Your task to perform on an android device: toggle show notifications on the lock screen Image 0: 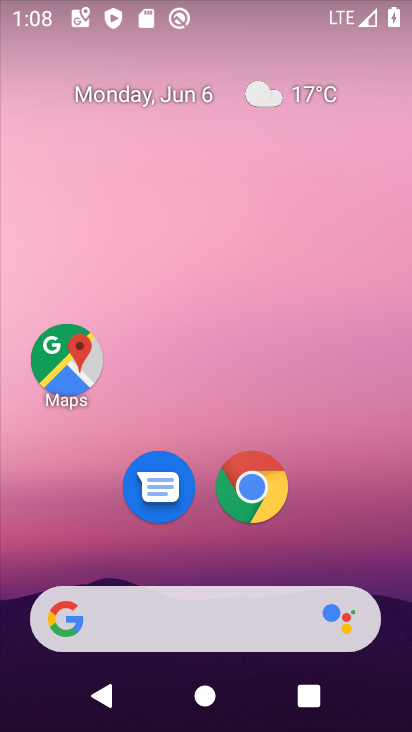
Step 0: drag from (194, 556) to (252, 41)
Your task to perform on an android device: toggle show notifications on the lock screen Image 1: 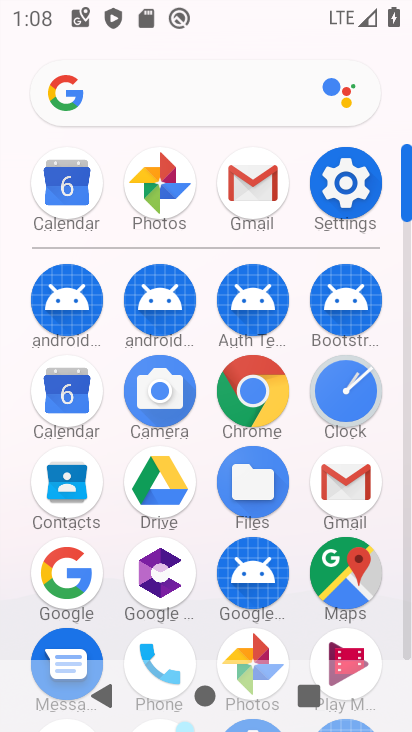
Step 1: click (341, 181)
Your task to perform on an android device: toggle show notifications on the lock screen Image 2: 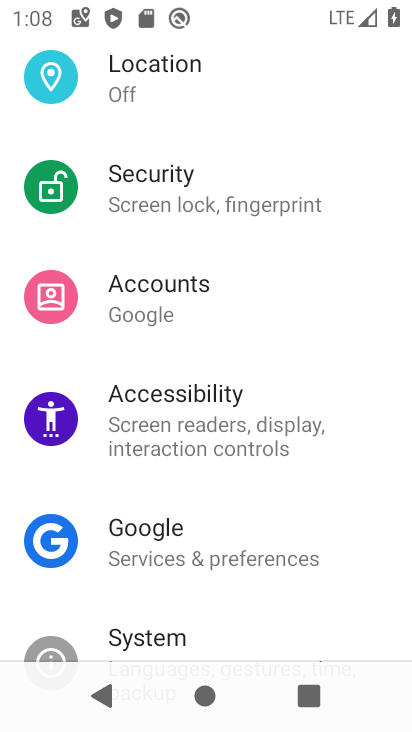
Step 2: drag from (283, 181) to (168, 588)
Your task to perform on an android device: toggle show notifications on the lock screen Image 3: 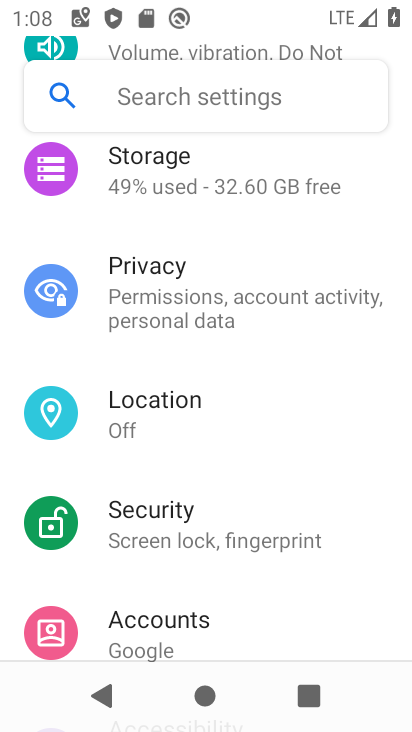
Step 3: drag from (275, 200) to (268, 558)
Your task to perform on an android device: toggle show notifications on the lock screen Image 4: 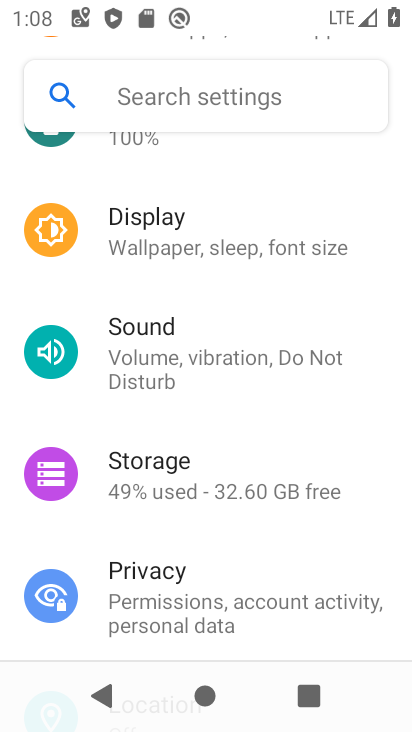
Step 4: drag from (193, 209) to (194, 527)
Your task to perform on an android device: toggle show notifications on the lock screen Image 5: 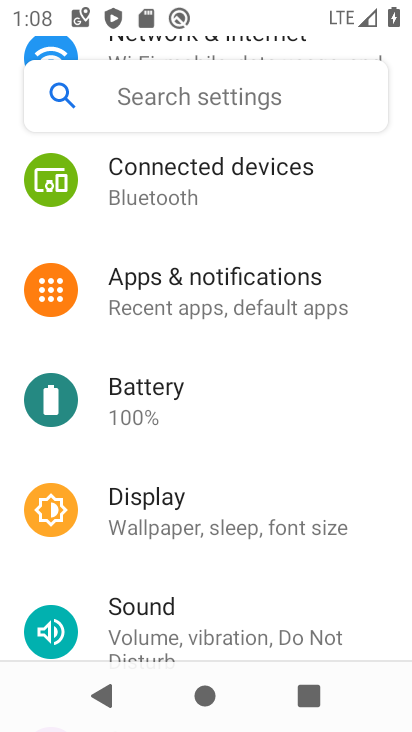
Step 5: drag from (230, 251) to (235, 495)
Your task to perform on an android device: toggle show notifications on the lock screen Image 6: 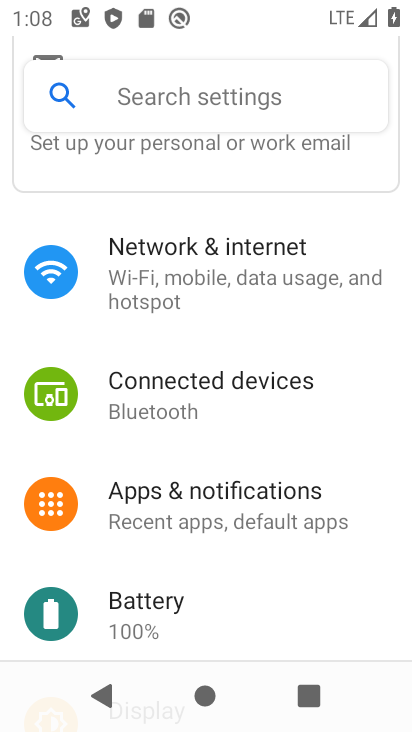
Step 6: click (243, 496)
Your task to perform on an android device: toggle show notifications on the lock screen Image 7: 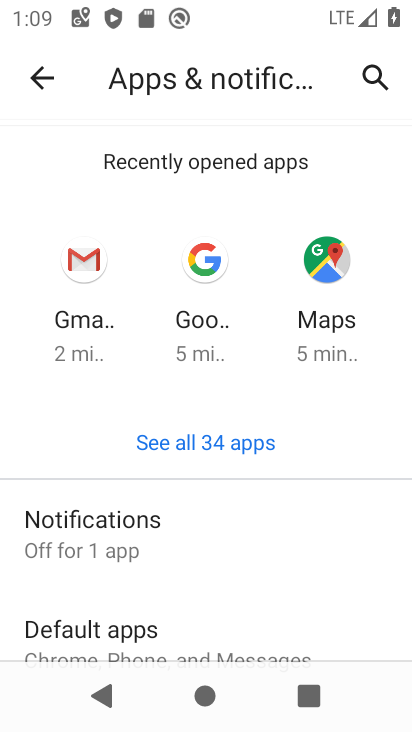
Step 7: click (167, 523)
Your task to perform on an android device: toggle show notifications on the lock screen Image 8: 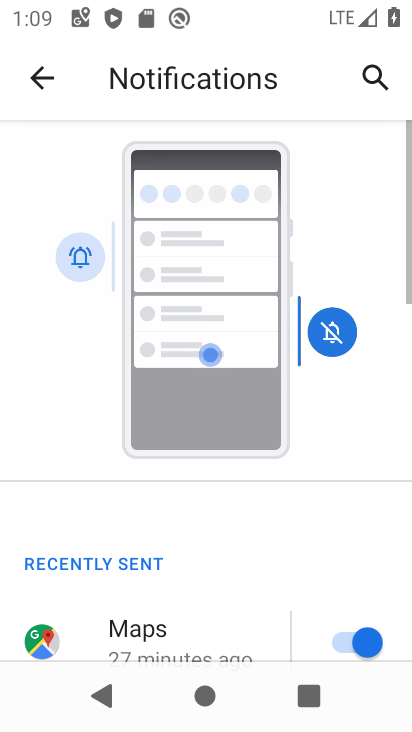
Step 8: drag from (171, 628) to (301, 67)
Your task to perform on an android device: toggle show notifications on the lock screen Image 9: 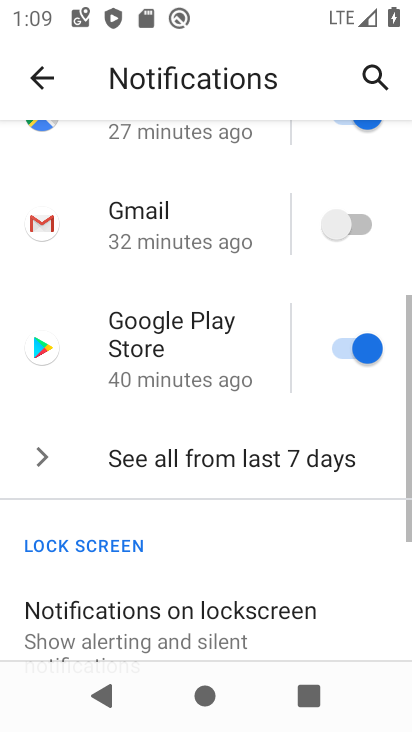
Step 9: drag from (236, 534) to (267, 208)
Your task to perform on an android device: toggle show notifications on the lock screen Image 10: 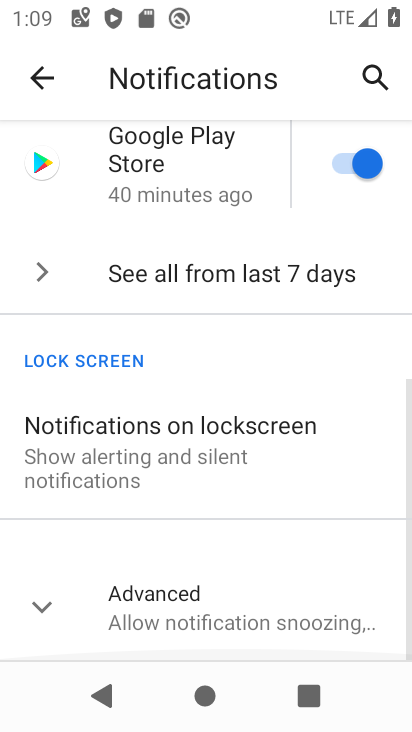
Step 10: click (178, 433)
Your task to perform on an android device: toggle show notifications on the lock screen Image 11: 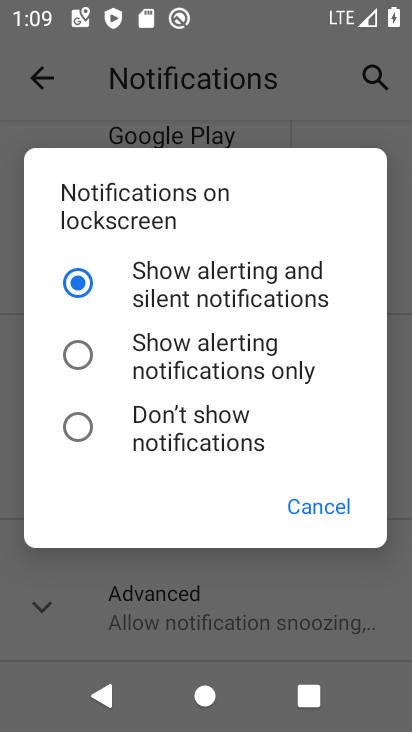
Step 11: task complete